Your task to perform on an android device: turn on airplane mode Image 0: 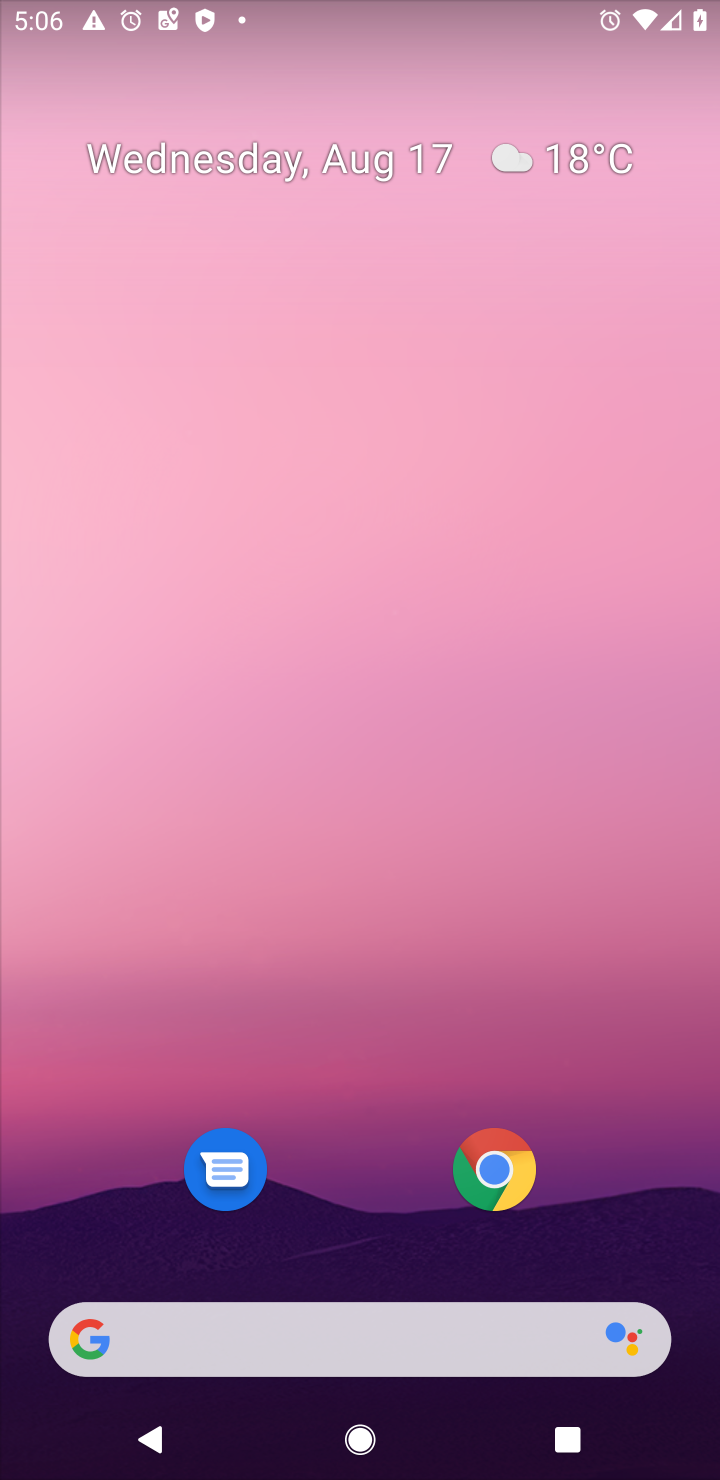
Step 0: drag from (477, 191) to (466, 1154)
Your task to perform on an android device: turn on airplane mode Image 1: 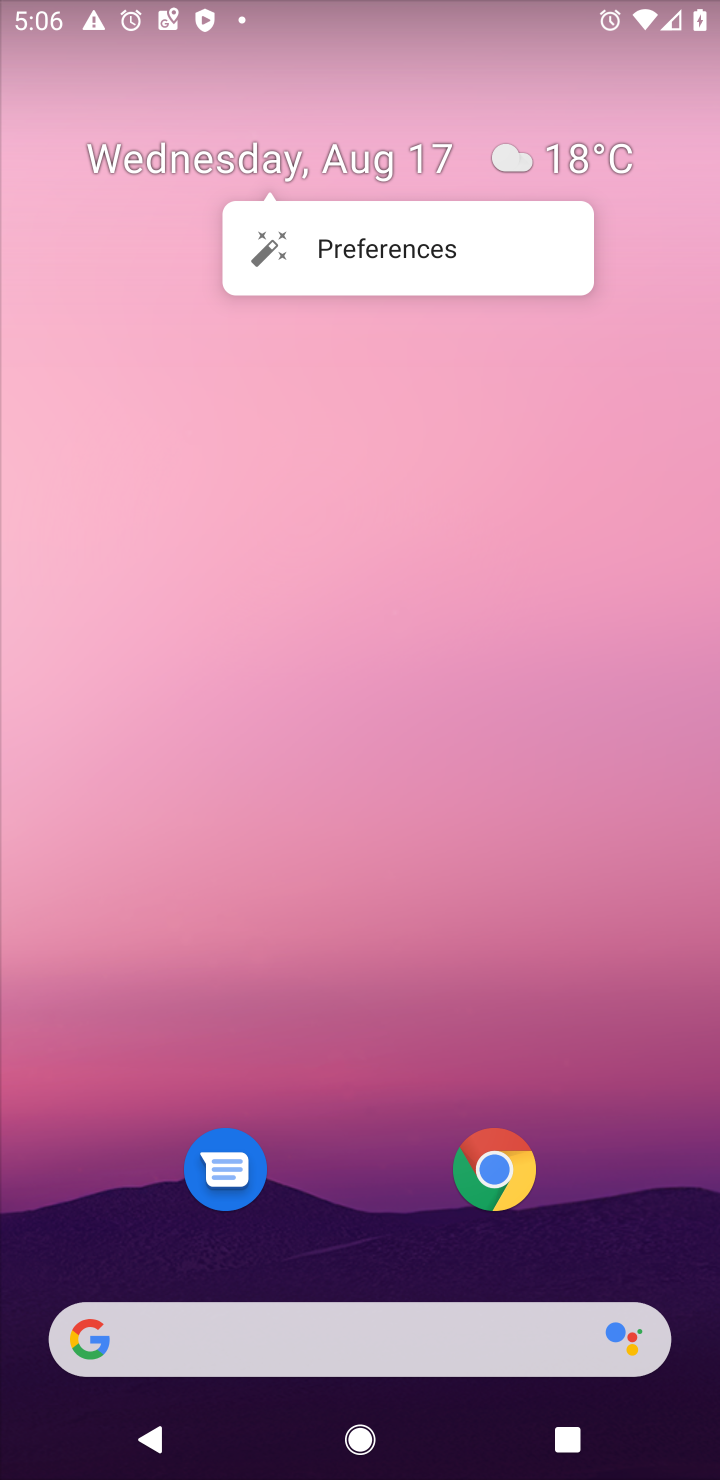
Step 1: drag from (392, 11) to (381, 918)
Your task to perform on an android device: turn on airplane mode Image 2: 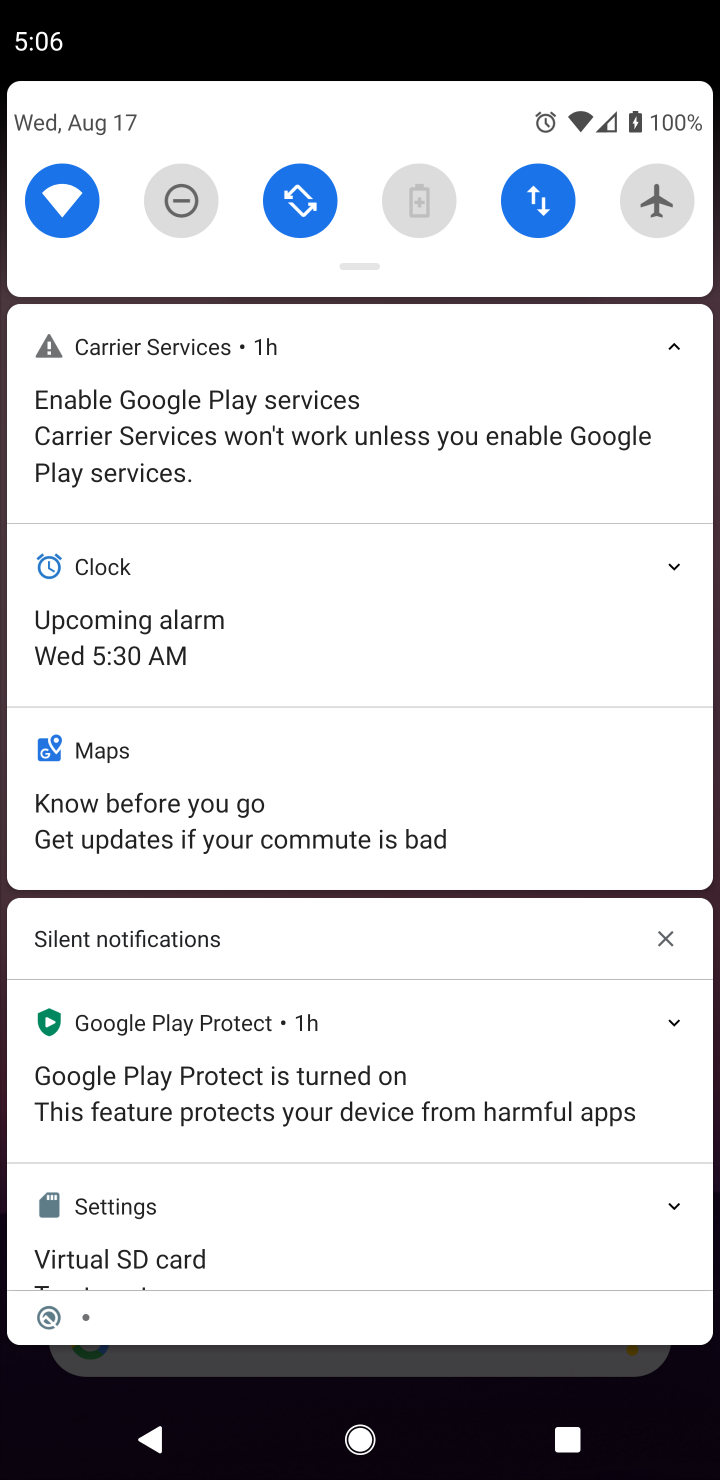
Step 2: click (649, 182)
Your task to perform on an android device: turn on airplane mode Image 3: 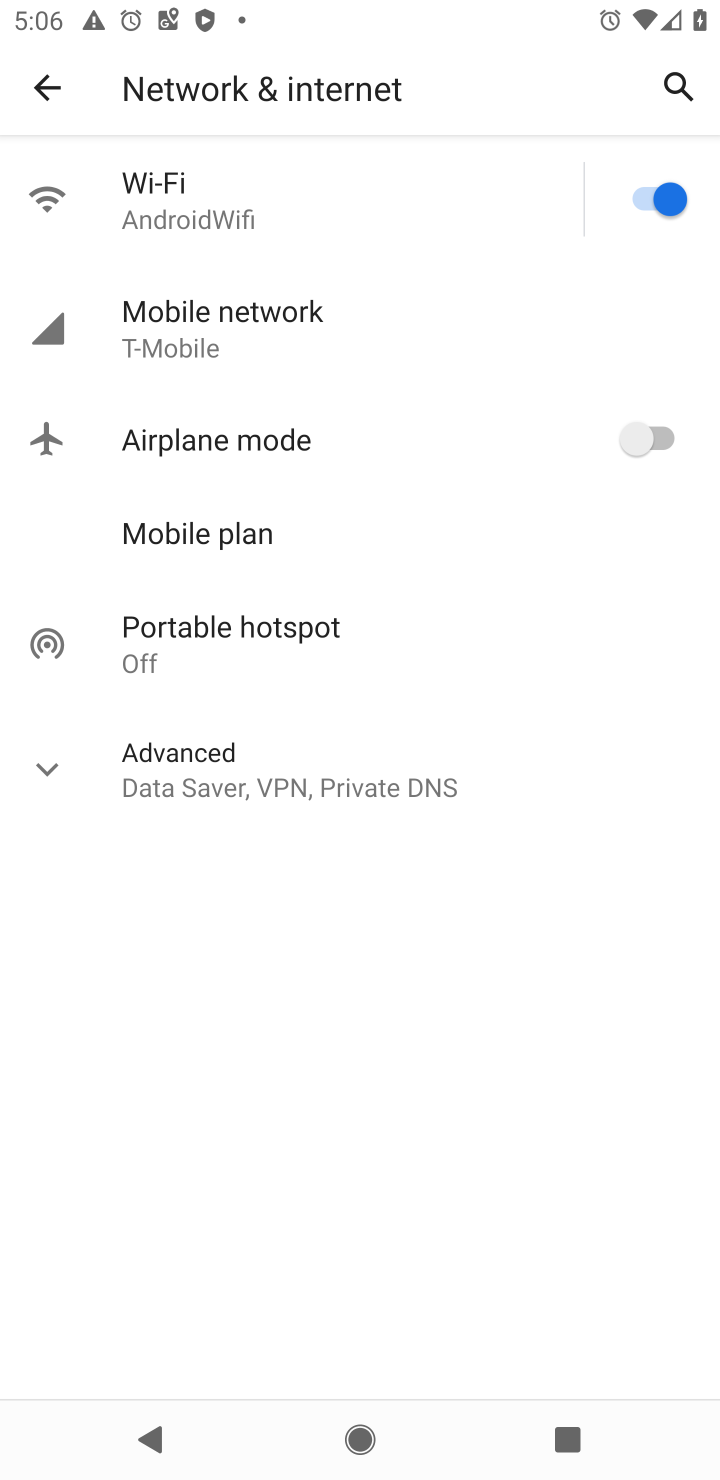
Step 3: click (621, 424)
Your task to perform on an android device: turn on airplane mode Image 4: 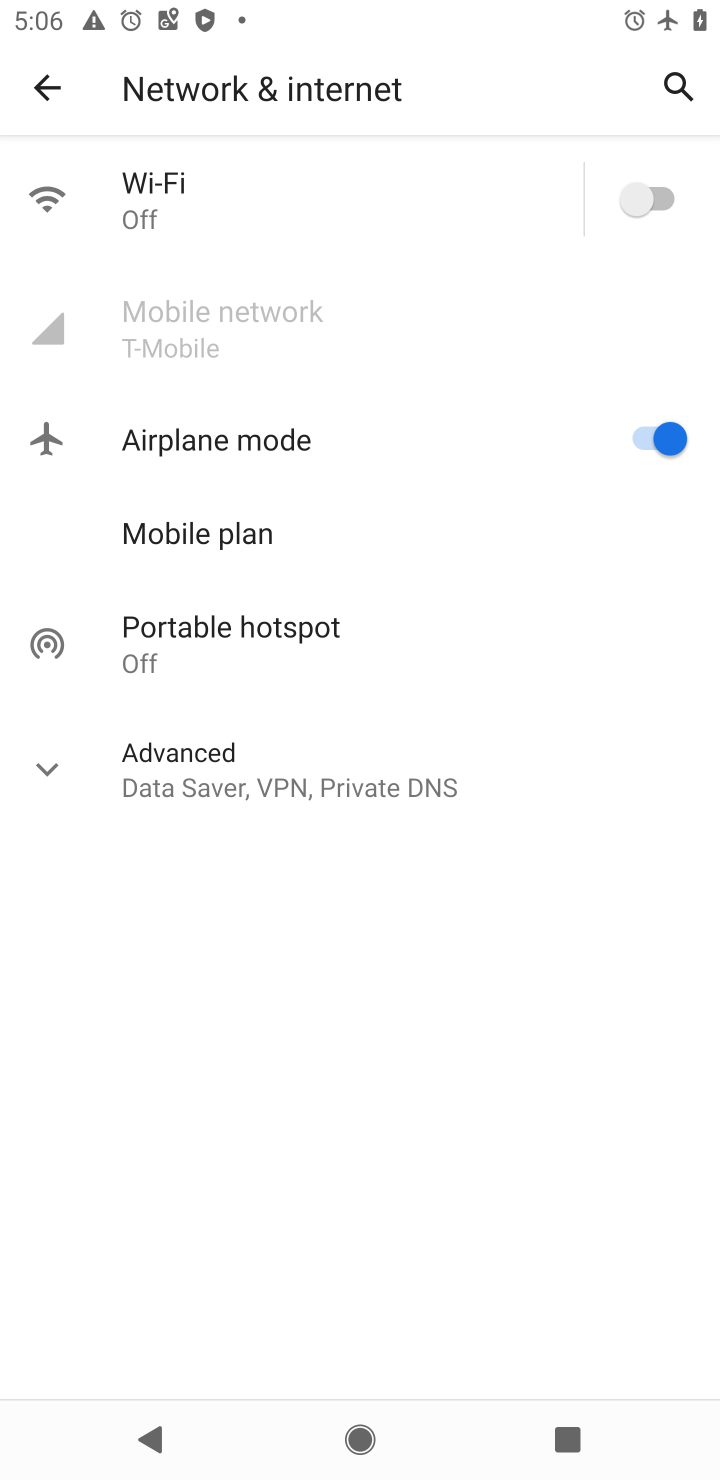
Step 4: task complete